Your task to perform on an android device: choose inbox layout in the gmail app Image 0: 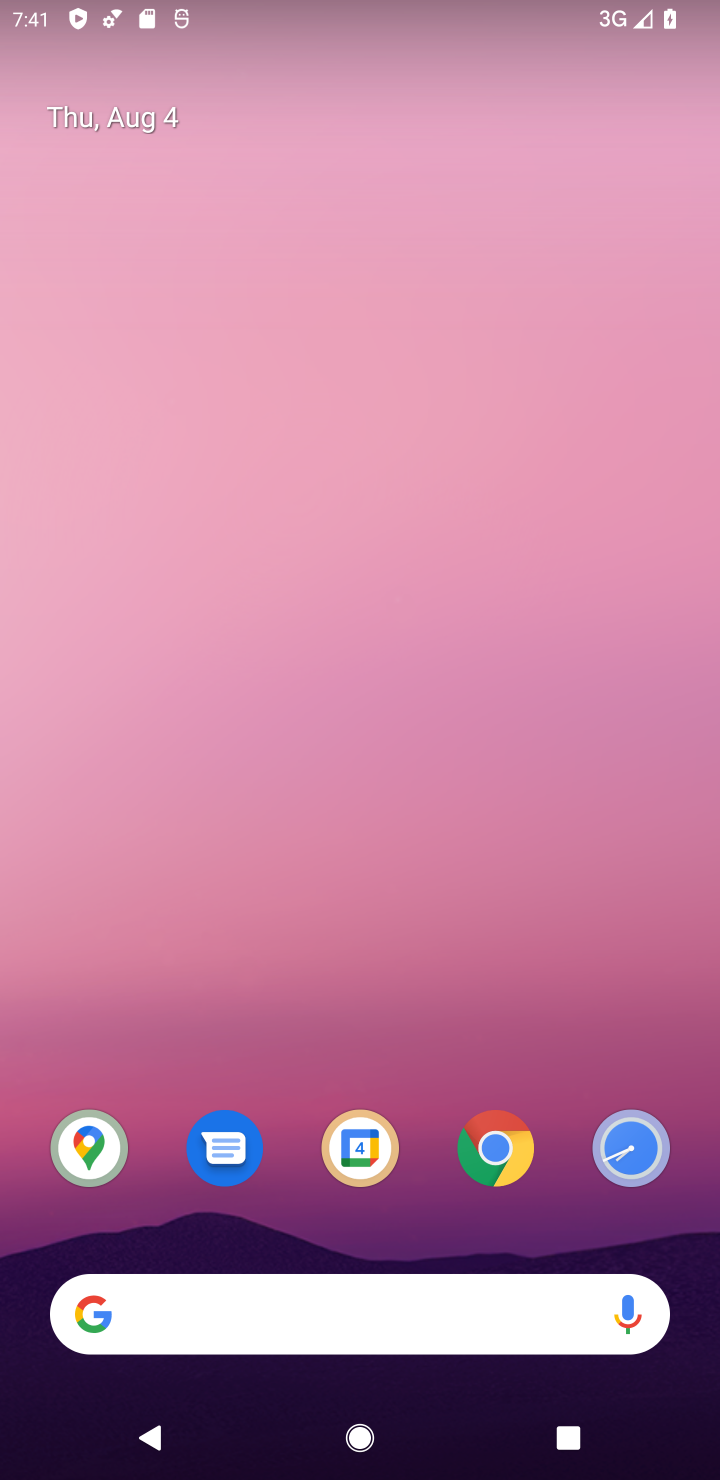
Step 0: drag from (573, 1067) to (429, 95)
Your task to perform on an android device: choose inbox layout in the gmail app Image 1: 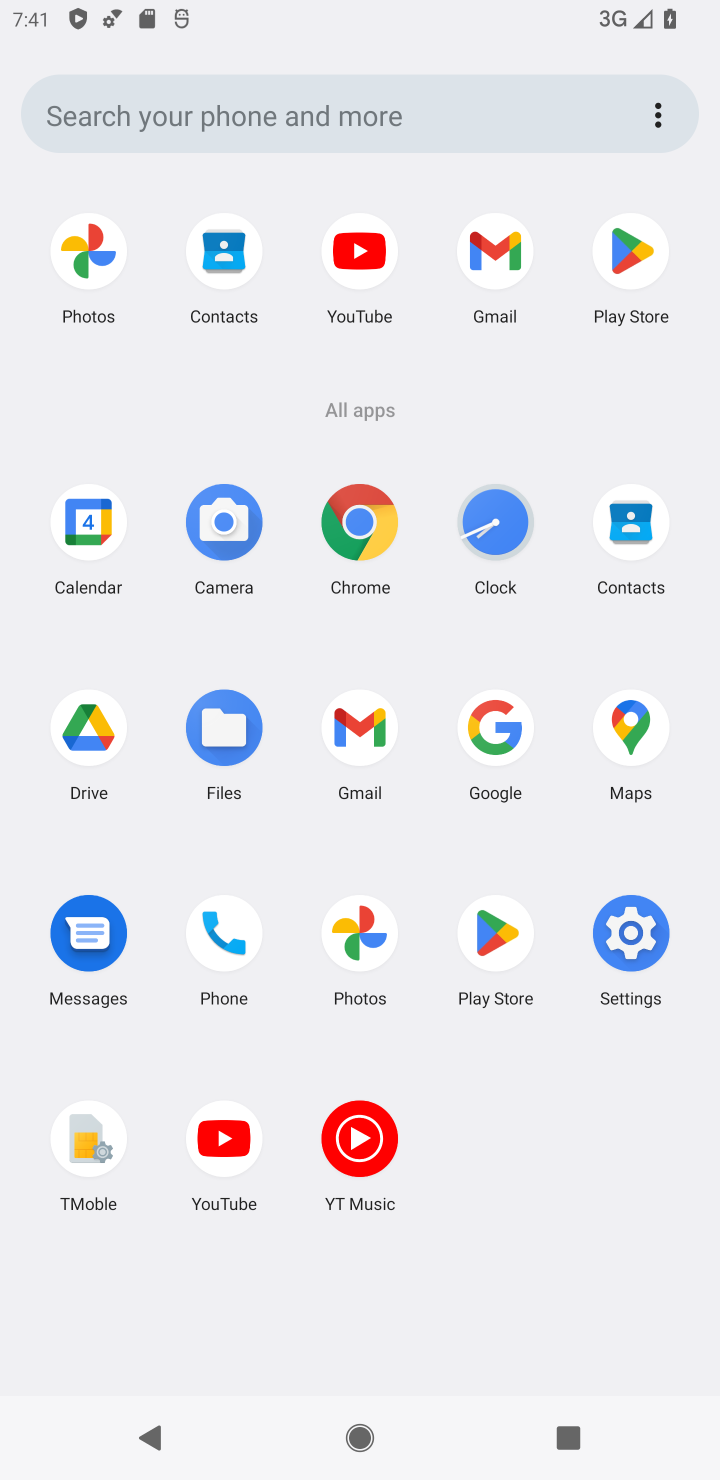
Step 1: click (368, 765)
Your task to perform on an android device: choose inbox layout in the gmail app Image 2: 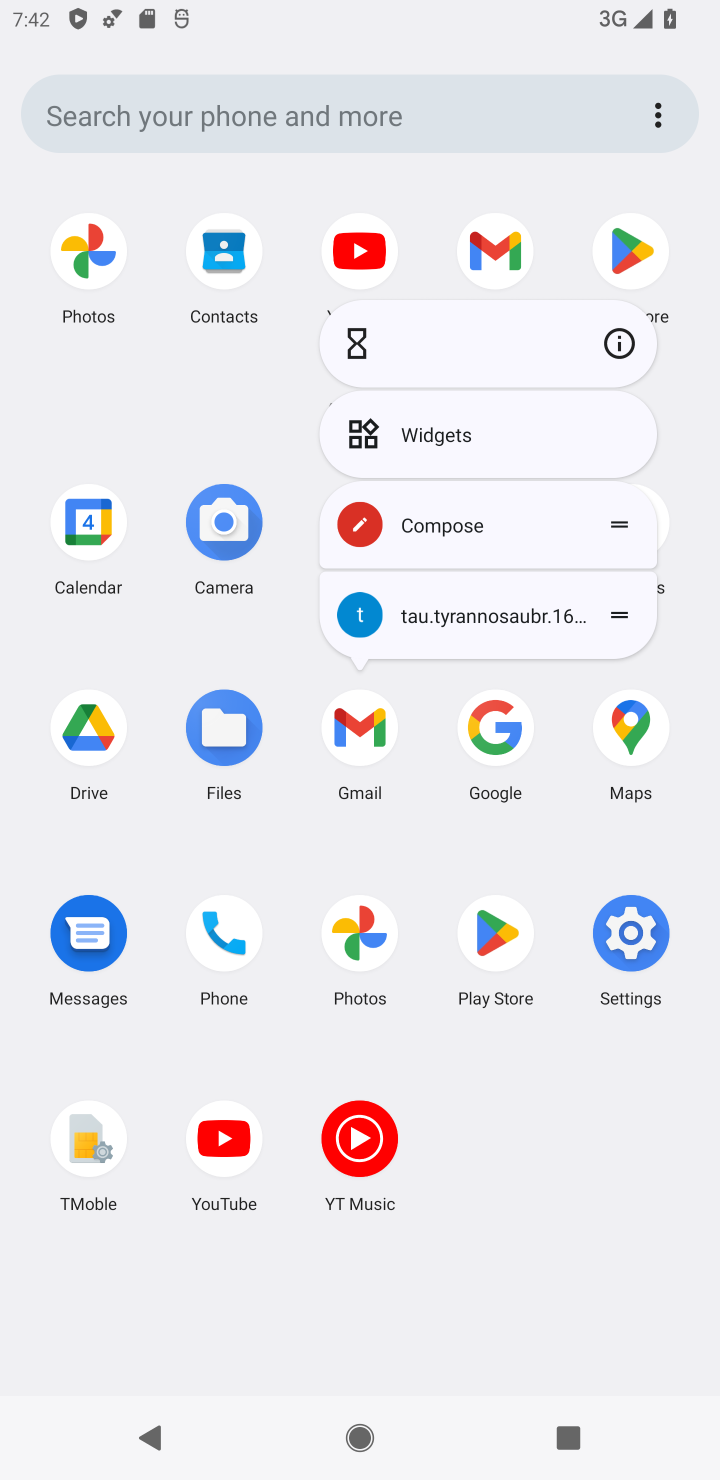
Step 2: click (371, 729)
Your task to perform on an android device: choose inbox layout in the gmail app Image 3: 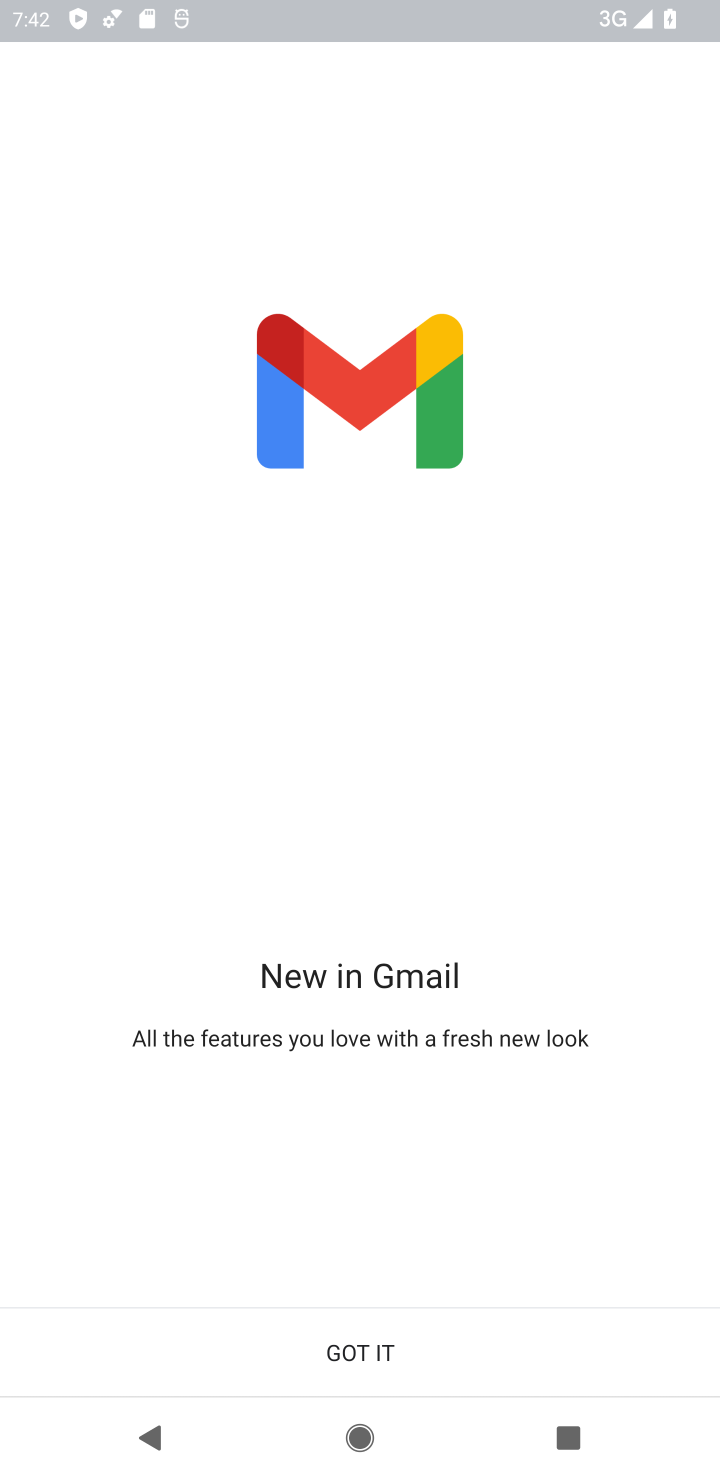
Step 3: click (366, 1346)
Your task to perform on an android device: choose inbox layout in the gmail app Image 4: 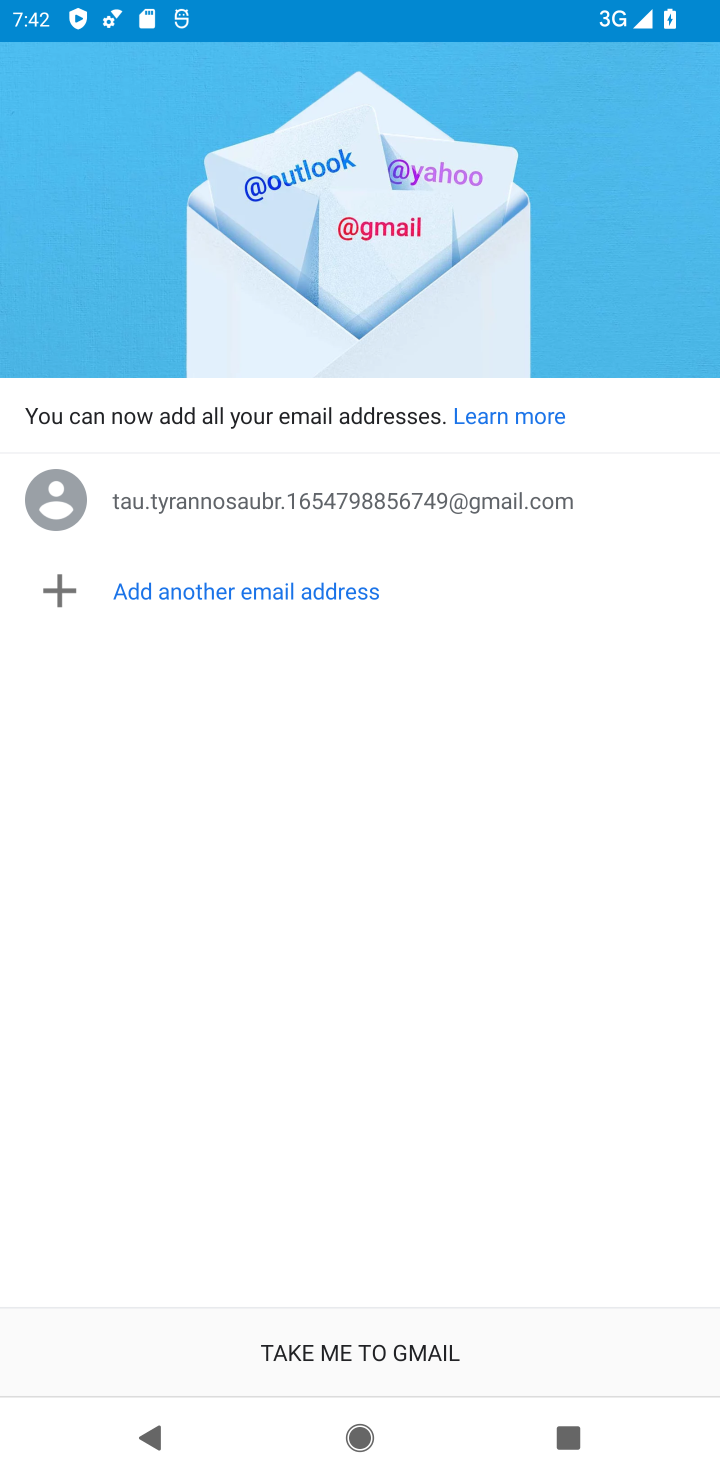
Step 4: click (439, 1366)
Your task to perform on an android device: choose inbox layout in the gmail app Image 5: 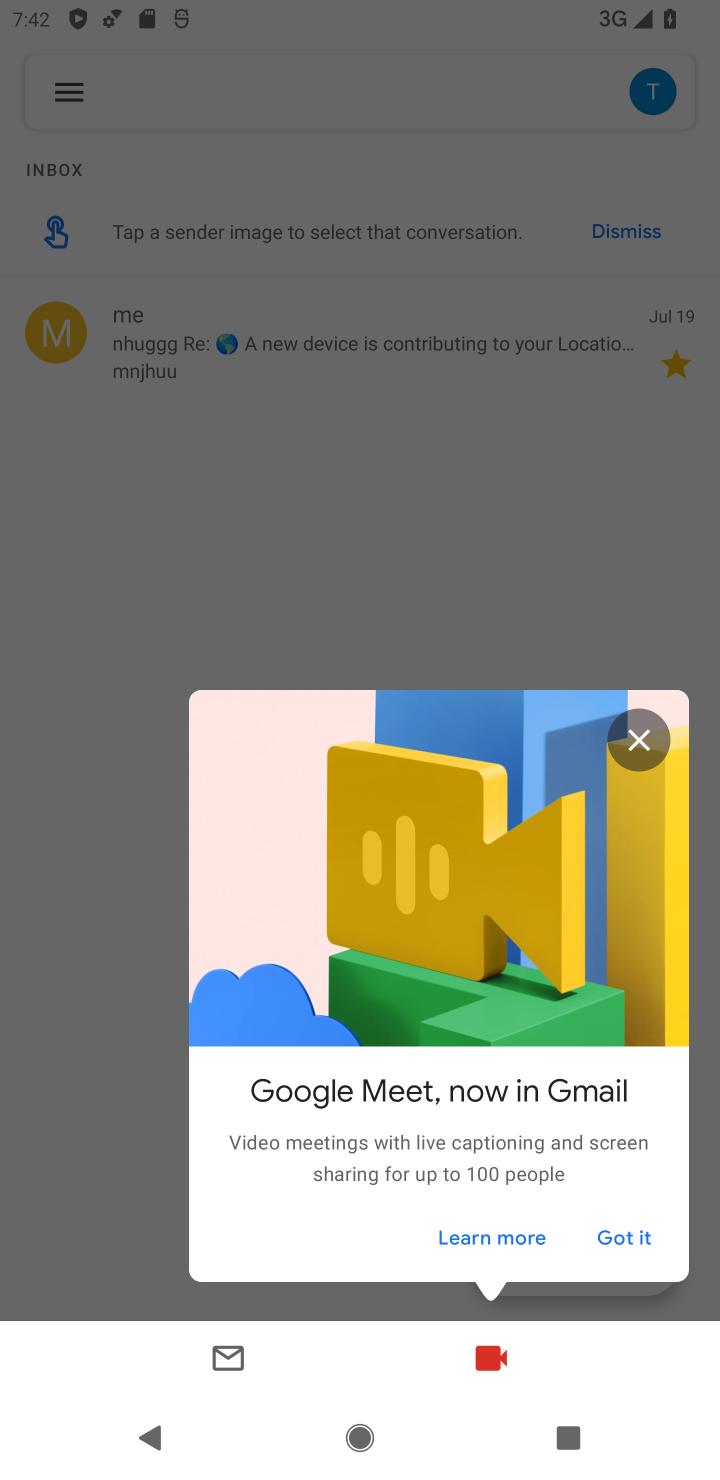
Step 5: click (617, 1241)
Your task to perform on an android device: choose inbox layout in the gmail app Image 6: 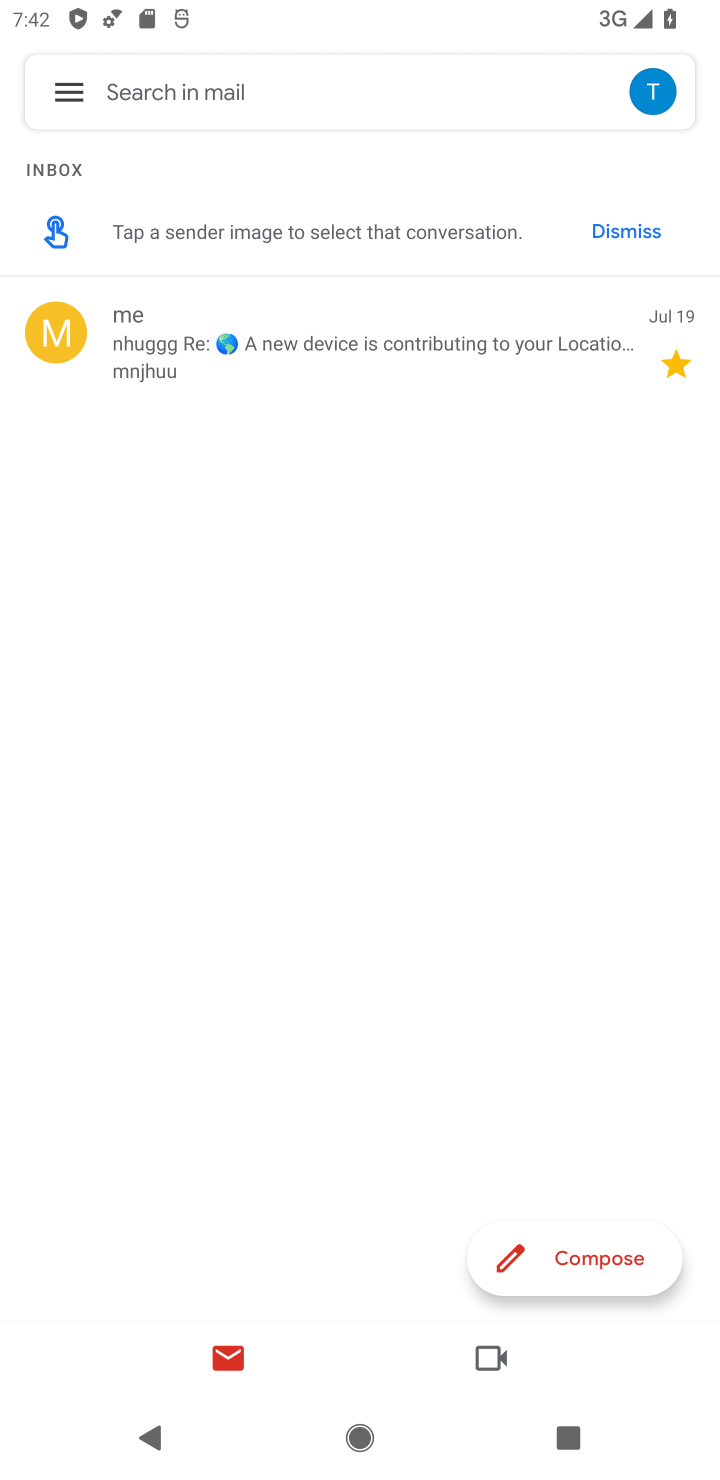
Step 6: click (73, 87)
Your task to perform on an android device: choose inbox layout in the gmail app Image 7: 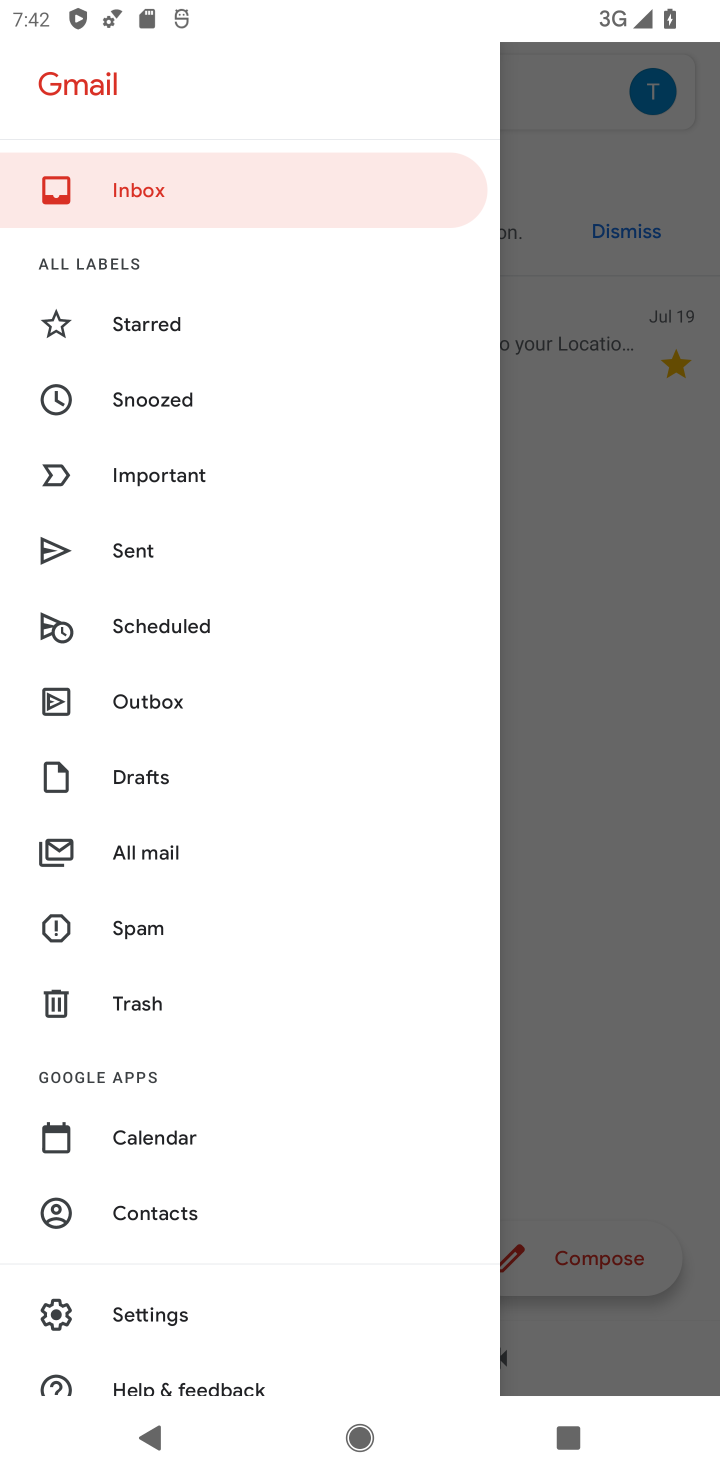
Step 7: click (121, 1315)
Your task to perform on an android device: choose inbox layout in the gmail app Image 8: 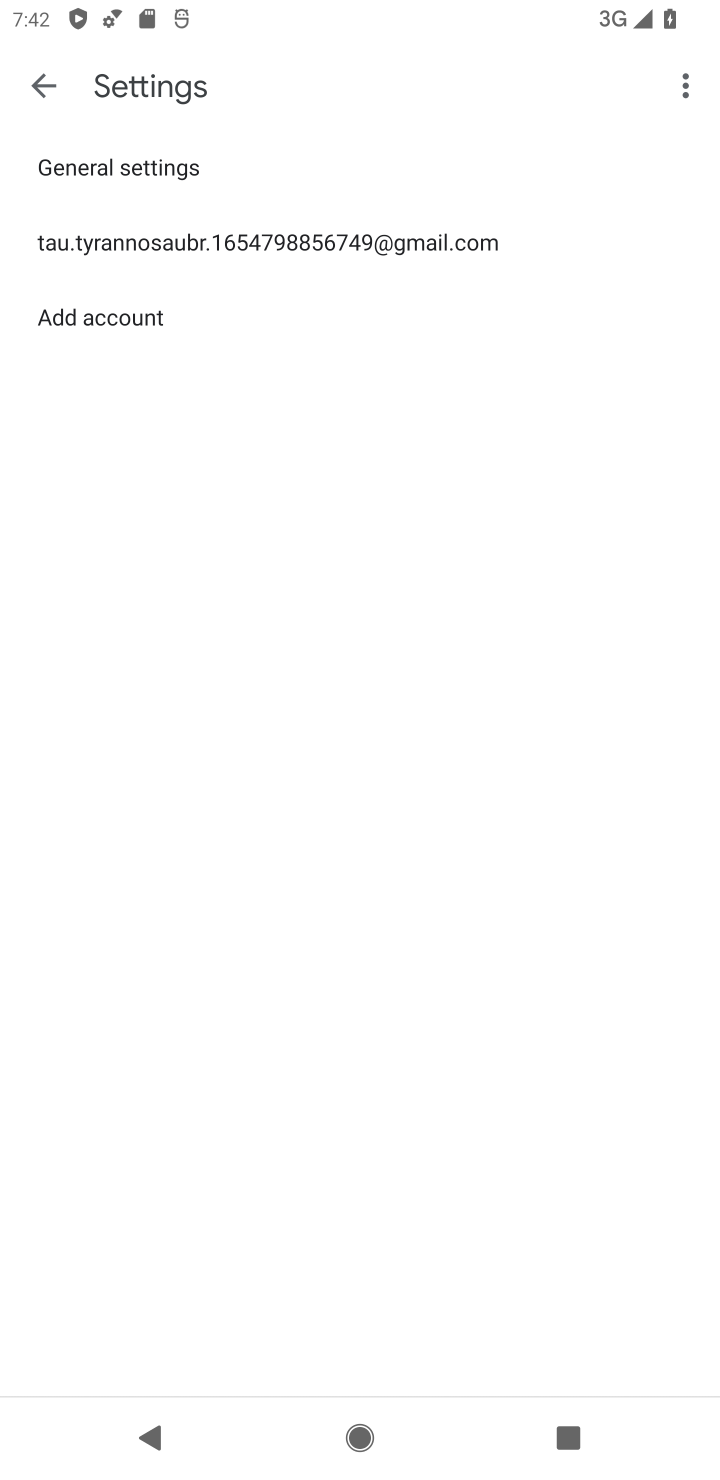
Step 8: click (420, 262)
Your task to perform on an android device: choose inbox layout in the gmail app Image 9: 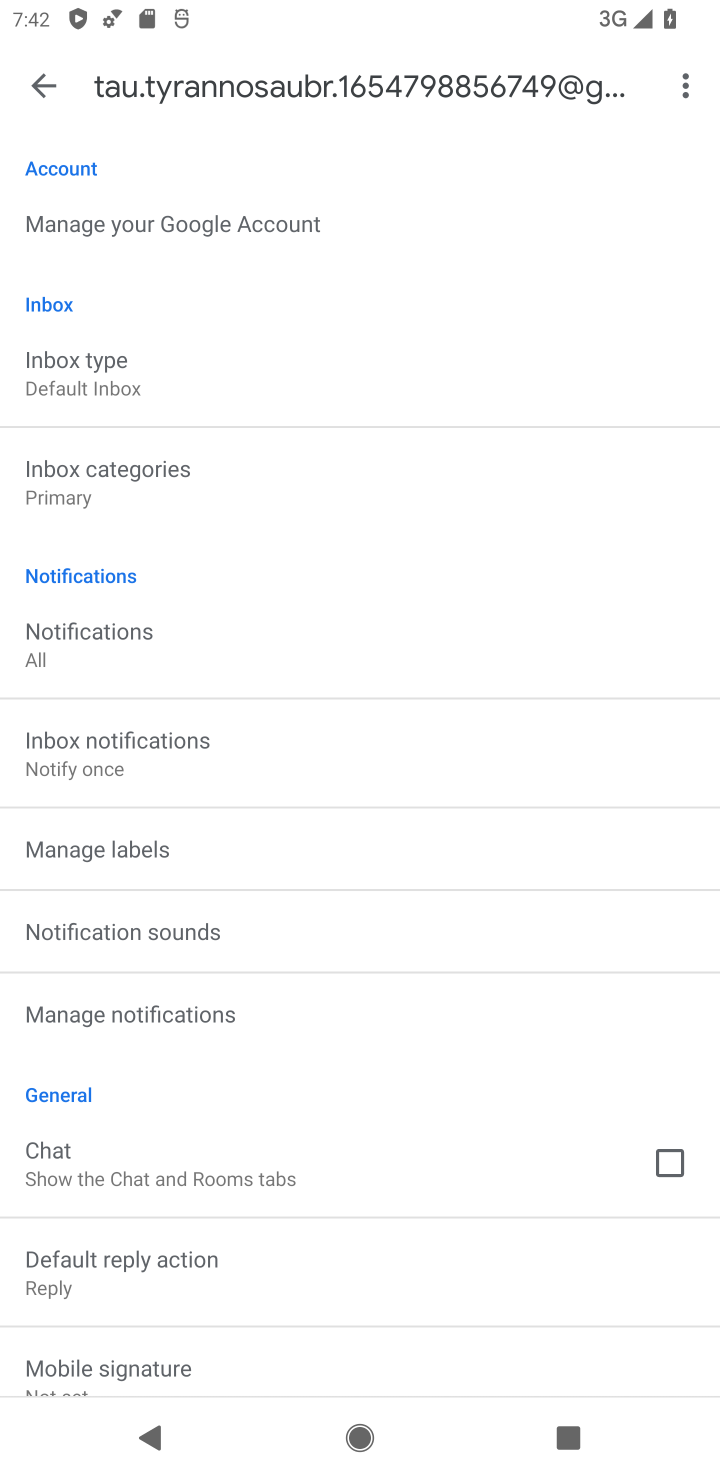
Step 9: click (318, 383)
Your task to perform on an android device: choose inbox layout in the gmail app Image 10: 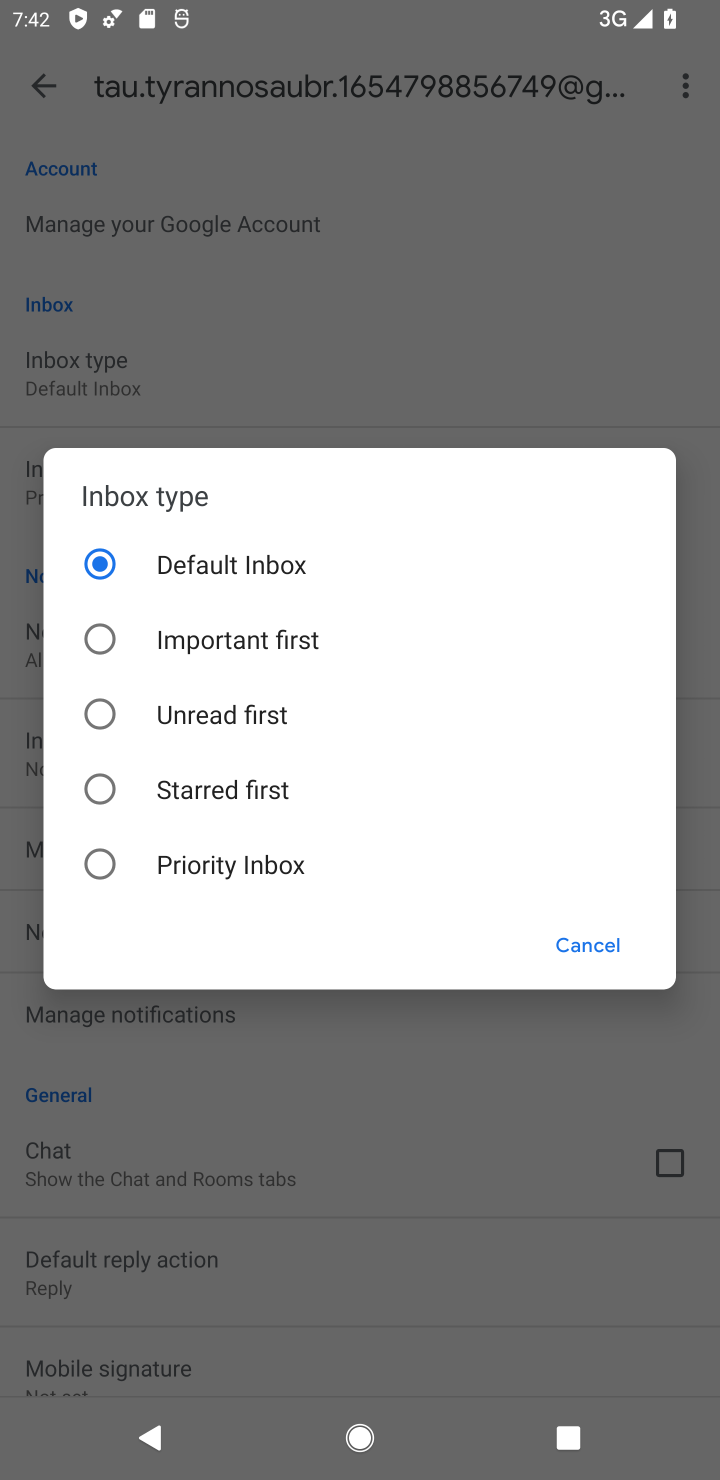
Step 10: click (255, 869)
Your task to perform on an android device: choose inbox layout in the gmail app Image 11: 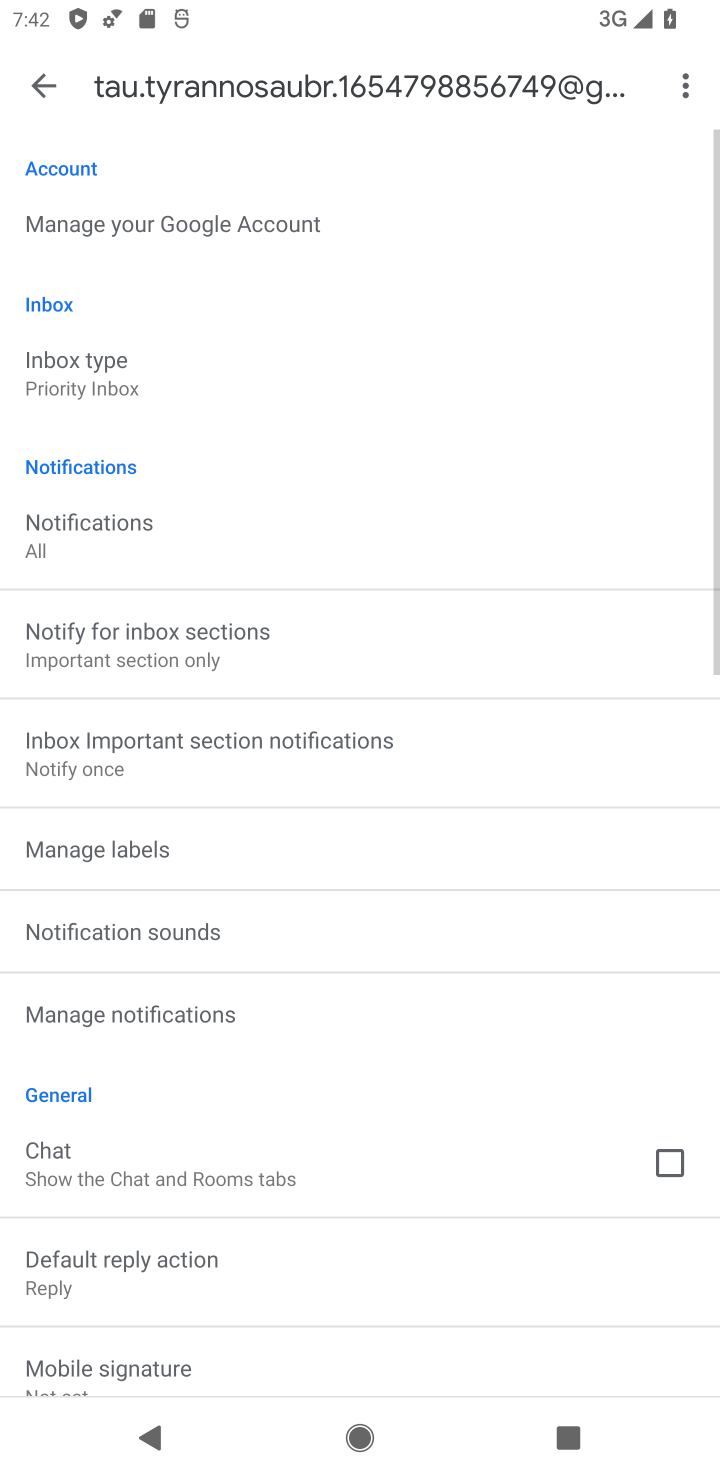
Step 11: task complete